Your task to perform on an android device: turn on airplane mode Image 0: 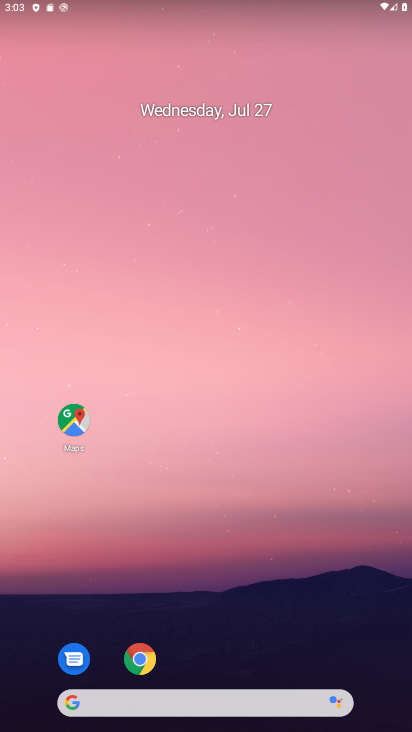
Step 0: drag from (236, 675) to (302, 7)
Your task to perform on an android device: turn on airplane mode Image 1: 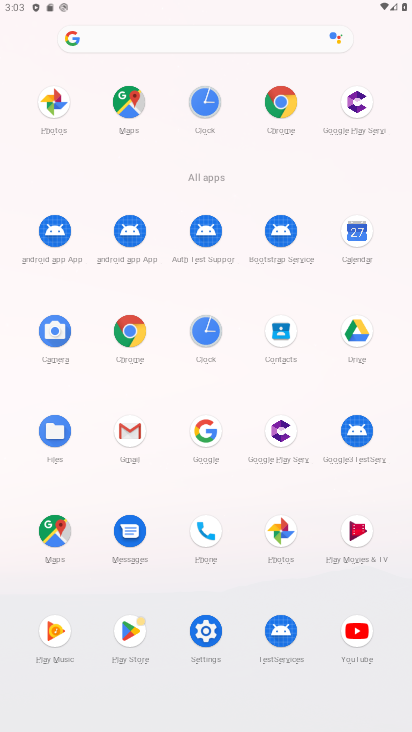
Step 1: click (210, 627)
Your task to perform on an android device: turn on airplane mode Image 2: 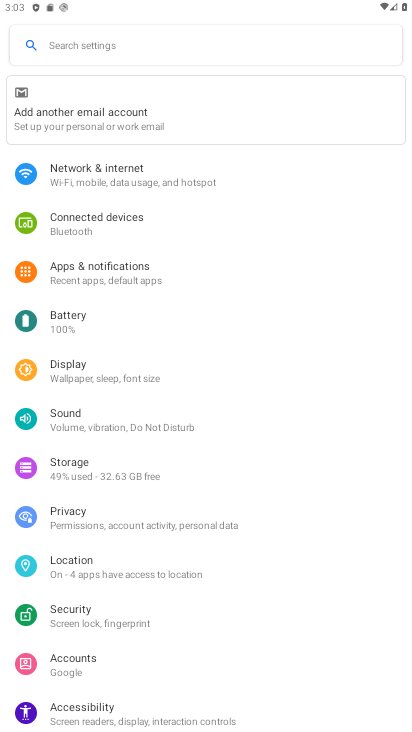
Step 2: click (139, 176)
Your task to perform on an android device: turn on airplane mode Image 3: 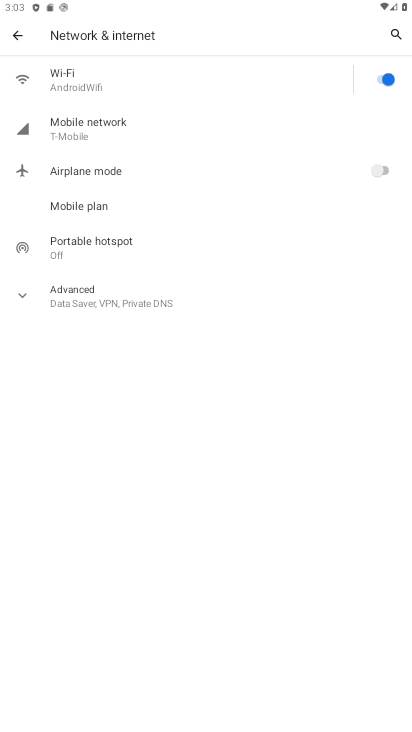
Step 3: click (381, 172)
Your task to perform on an android device: turn on airplane mode Image 4: 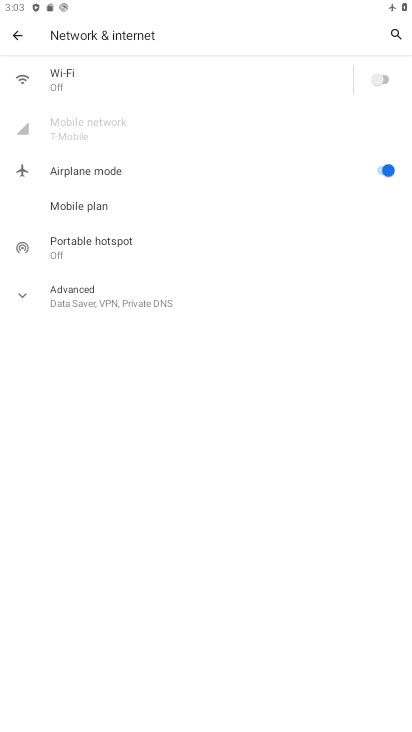
Step 4: task complete